Your task to perform on an android device: Open privacy settings Image 0: 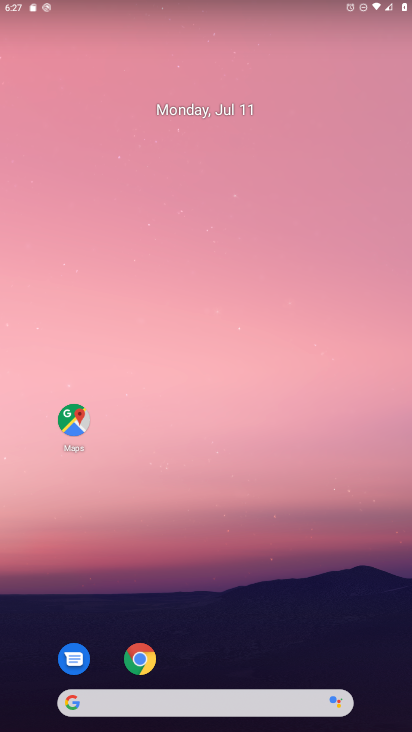
Step 0: drag from (386, 649) to (340, 101)
Your task to perform on an android device: Open privacy settings Image 1: 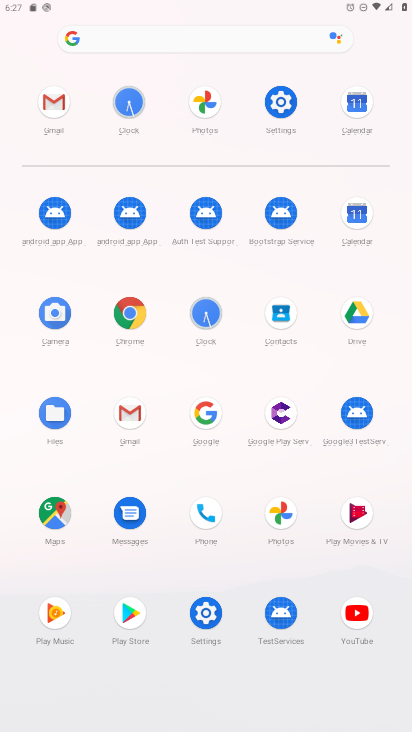
Step 1: click (204, 613)
Your task to perform on an android device: Open privacy settings Image 2: 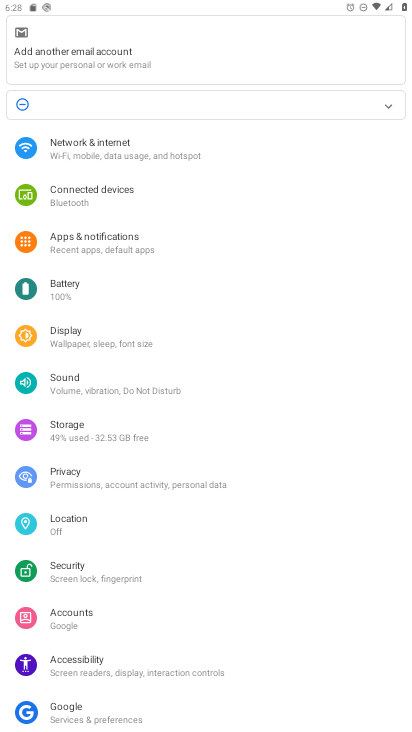
Step 2: click (65, 469)
Your task to perform on an android device: Open privacy settings Image 3: 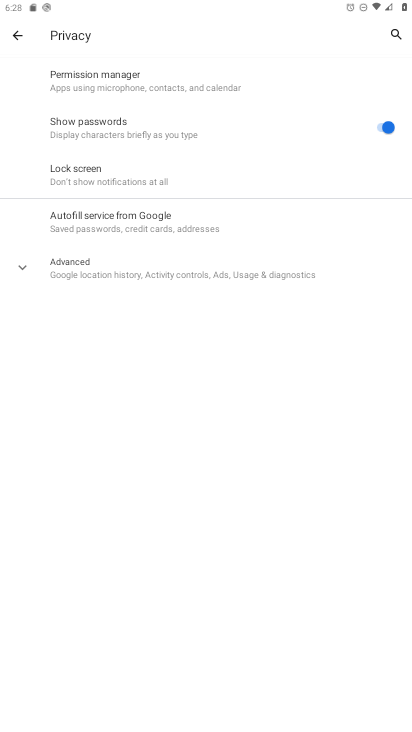
Step 3: click (23, 263)
Your task to perform on an android device: Open privacy settings Image 4: 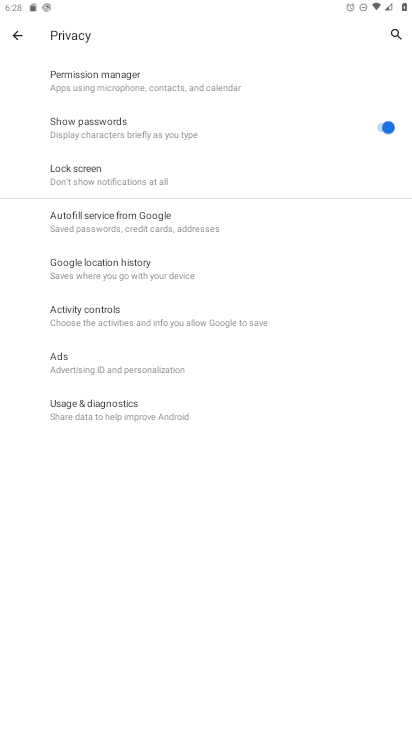
Step 4: task complete